Your task to perform on an android device: set an alarm Image 0: 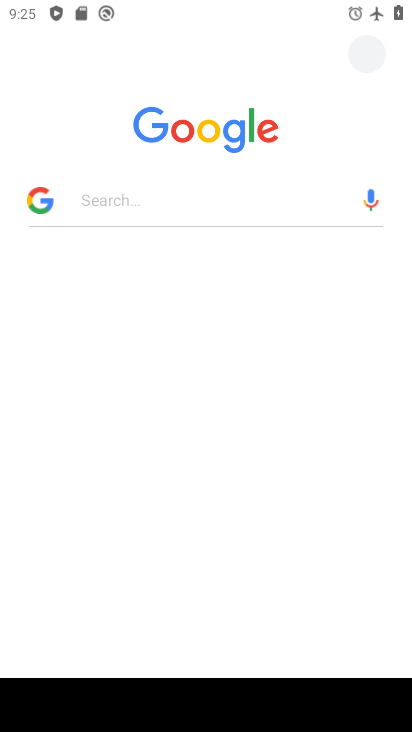
Step 0: press home button
Your task to perform on an android device: set an alarm Image 1: 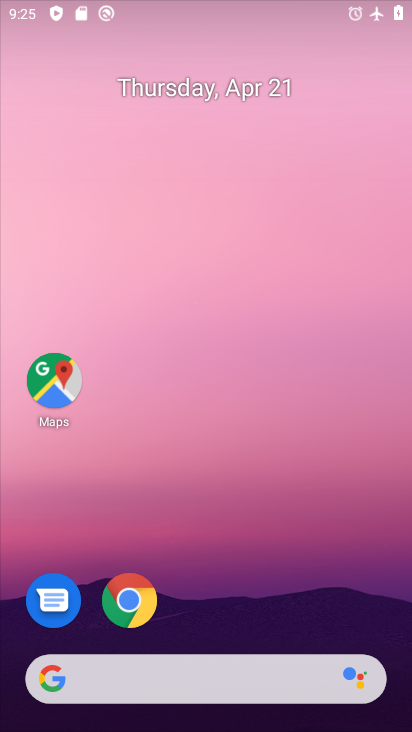
Step 1: drag from (224, 565) to (190, 32)
Your task to perform on an android device: set an alarm Image 2: 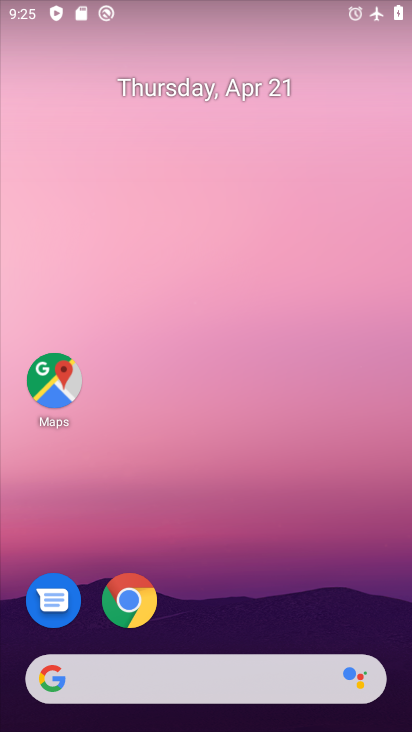
Step 2: drag from (198, 553) to (202, 119)
Your task to perform on an android device: set an alarm Image 3: 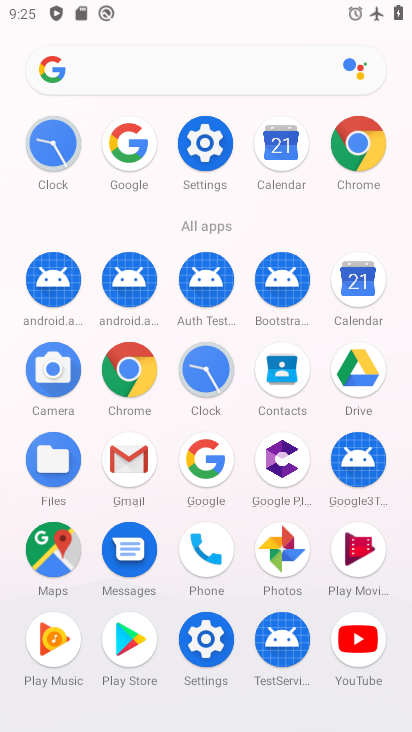
Step 3: click (52, 144)
Your task to perform on an android device: set an alarm Image 4: 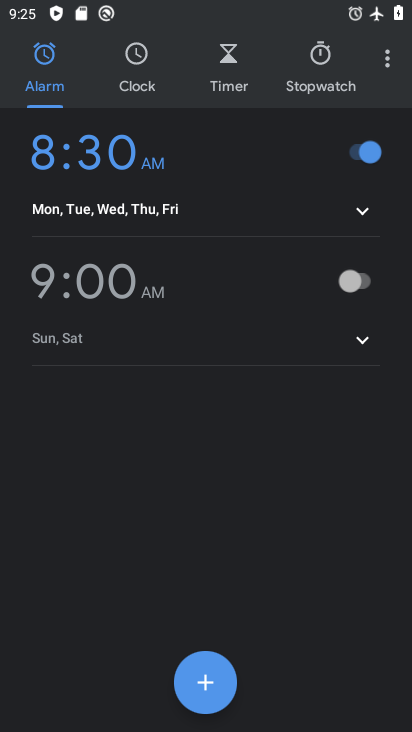
Step 4: click (342, 282)
Your task to perform on an android device: set an alarm Image 5: 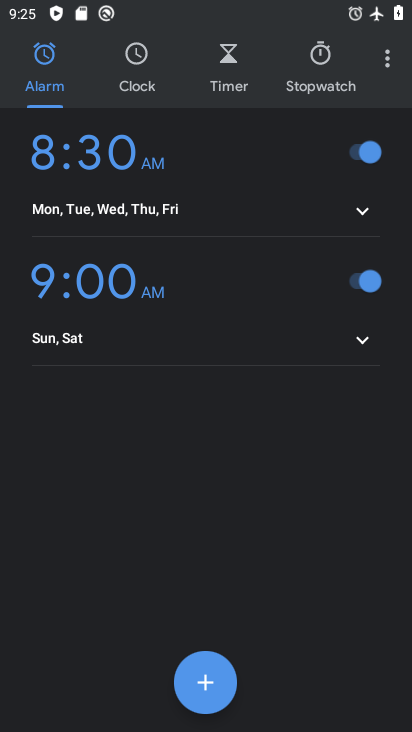
Step 5: task complete